Your task to perform on an android device: turn on translation in the chrome app Image 0: 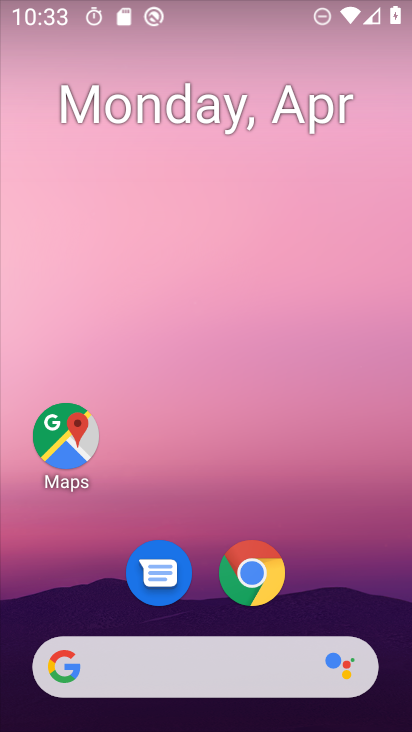
Step 0: drag from (332, 511) to (402, 397)
Your task to perform on an android device: turn on translation in the chrome app Image 1: 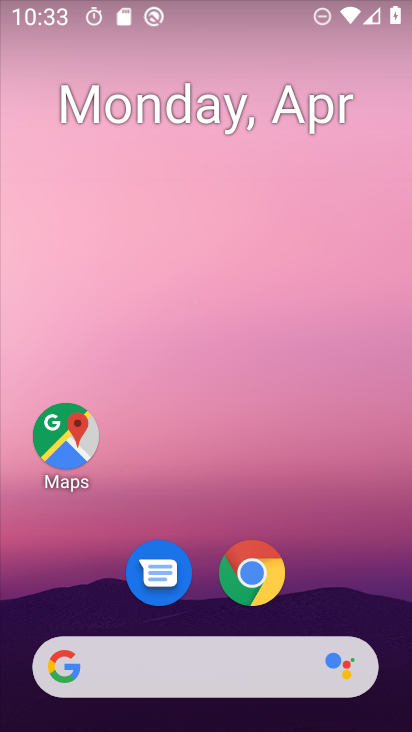
Step 1: drag from (321, 528) to (411, 210)
Your task to perform on an android device: turn on translation in the chrome app Image 2: 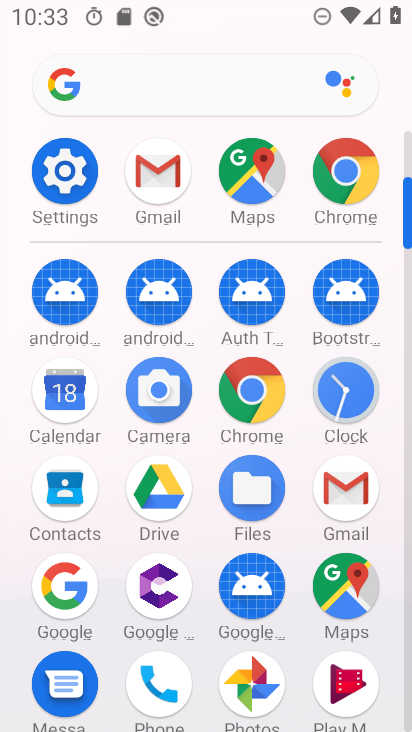
Step 2: click (367, 150)
Your task to perform on an android device: turn on translation in the chrome app Image 3: 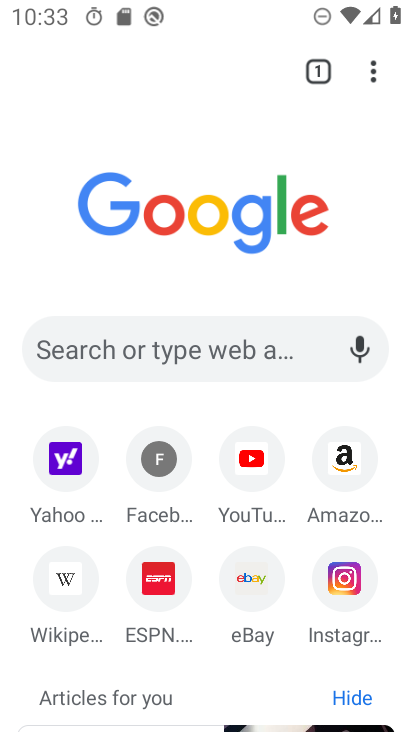
Step 3: click (387, 76)
Your task to perform on an android device: turn on translation in the chrome app Image 4: 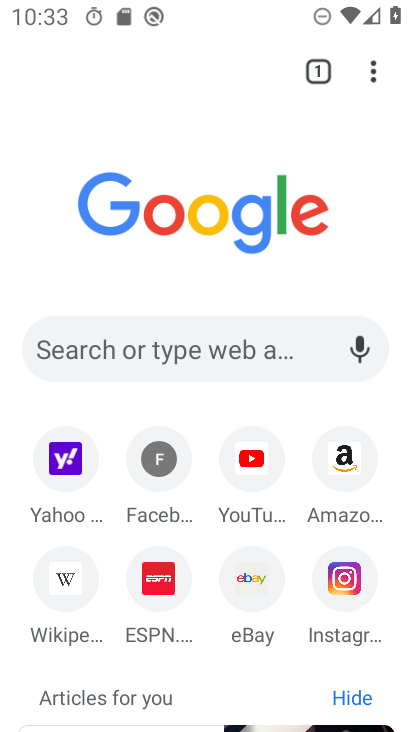
Step 4: click (387, 76)
Your task to perform on an android device: turn on translation in the chrome app Image 5: 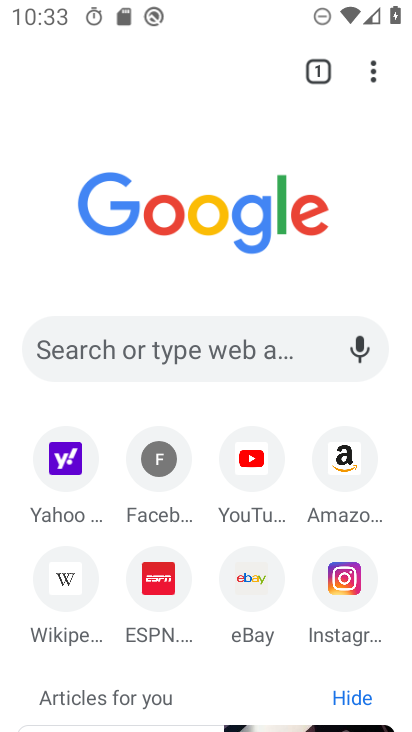
Step 5: drag from (376, 76) to (160, 570)
Your task to perform on an android device: turn on translation in the chrome app Image 6: 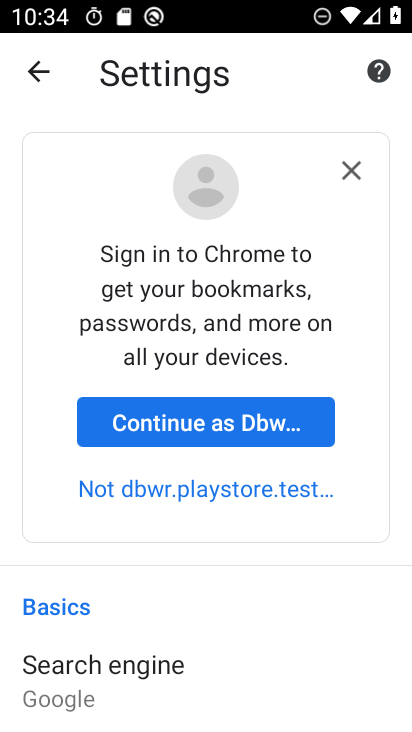
Step 6: drag from (175, 589) to (266, 233)
Your task to perform on an android device: turn on translation in the chrome app Image 7: 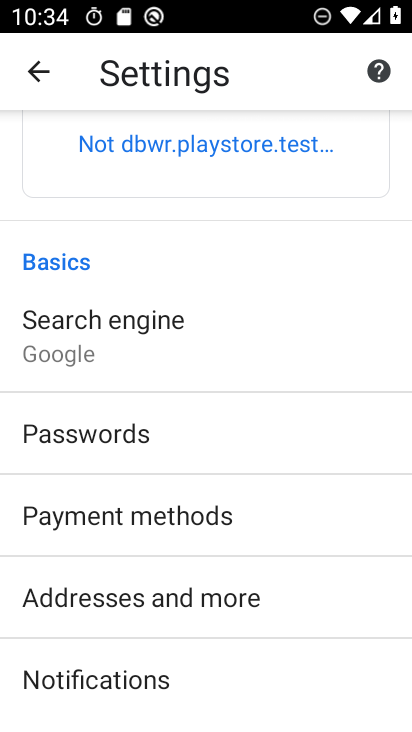
Step 7: drag from (224, 556) to (278, 223)
Your task to perform on an android device: turn on translation in the chrome app Image 8: 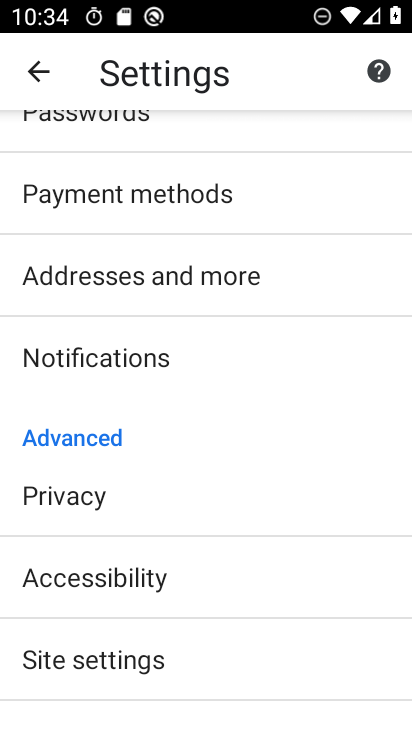
Step 8: drag from (219, 584) to (274, 145)
Your task to perform on an android device: turn on translation in the chrome app Image 9: 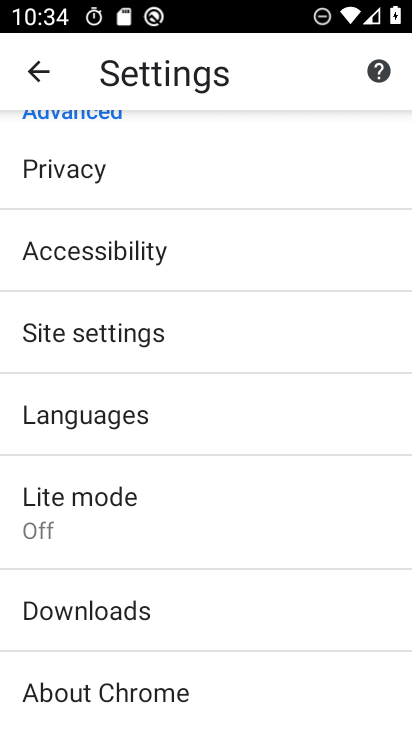
Step 9: drag from (199, 470) to (188, 216)
Your task to perform on an android device: turn on translation in the chrome app Image 10: 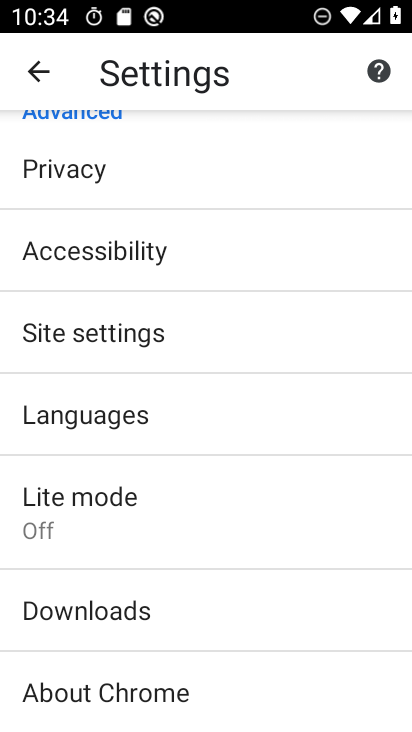
Step 10: drag from (252, 571) to (288, 198)
Your task to perform on an android device: turn on translation in the chrome app Image 11: 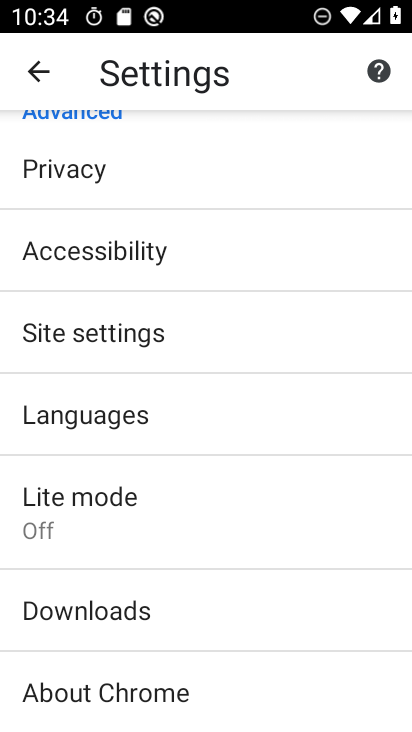
Step 11: click (158, 432)
Your task to perform on an android device: turn on translation in the chrome app Image 12: 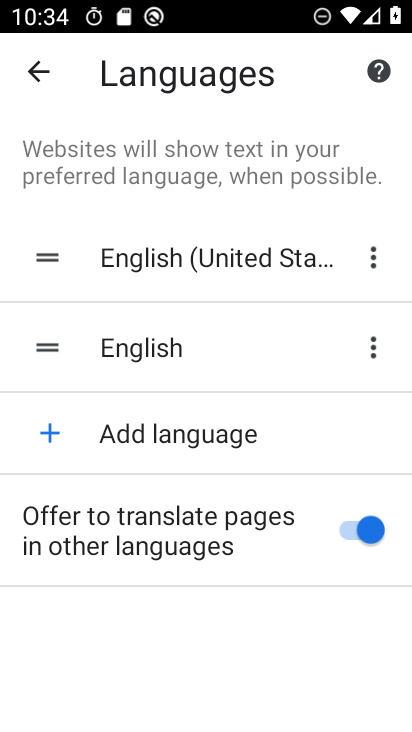
Step 12: task complete